Your task to perform on an android device: turn on notifications settings in the gmail app Image 0: 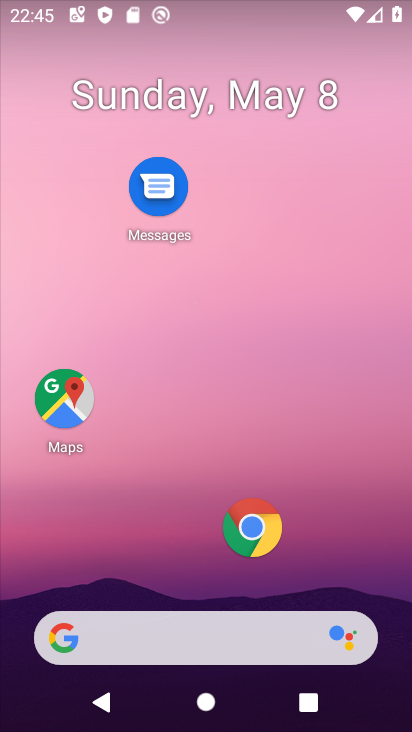
Step 0: drag from (185, 548) to (218, 119)
Your task to perform on an android device: turn on notifications settings in the gmail app Image 1: 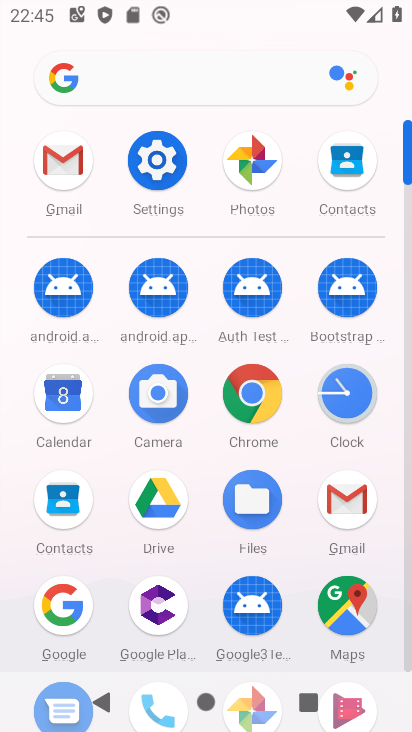
Step 1: click (59, 166)
Your task to perform on an android device: turn on notifications settings in the gmail app Image 2: 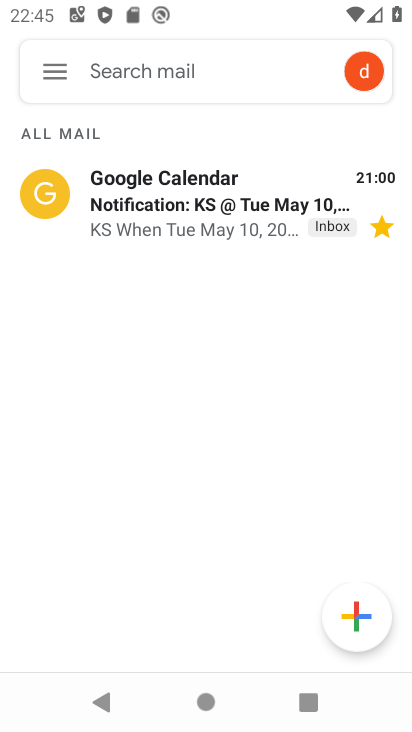
Step 2: press back button
Your task to perform on an android device: turn on notifications settings in the gmail app Image 3: 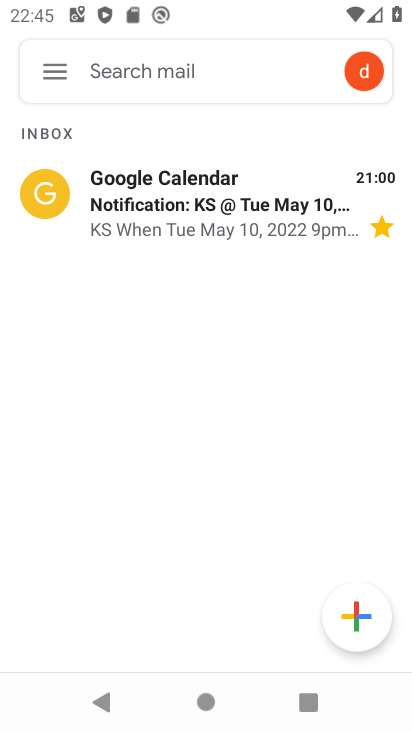
Step 3: click (56, 72)
Your task to perform on an android device: turn on notifications settings in the gmail app Image 4: 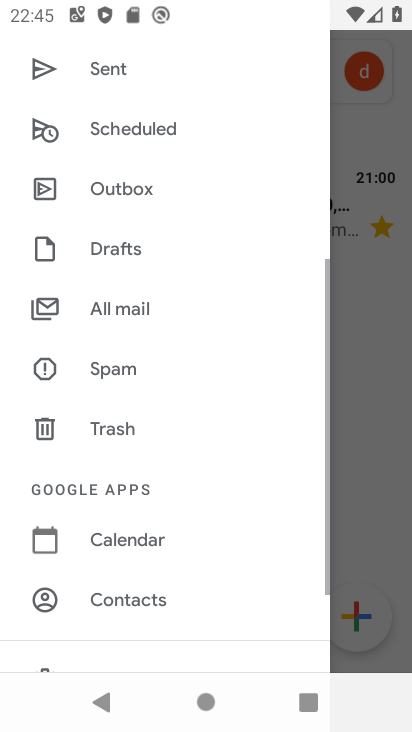
Step 4: drag from (147, 565) to (188, 59)
Your task to perform on an android device: turn on notifications settings in the gmail app Image 5: 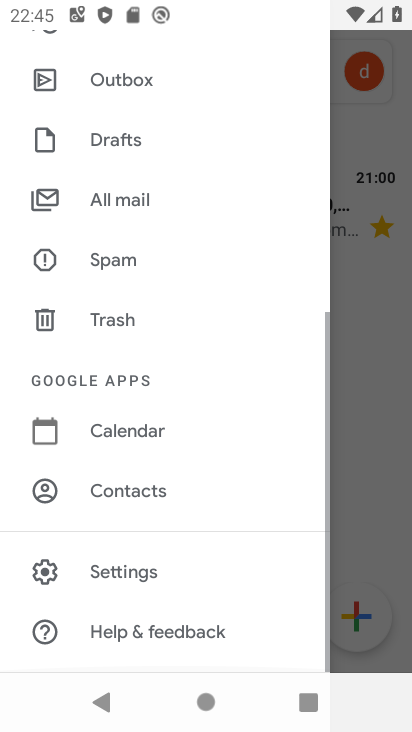
Step 5: click (120, 576)
Your task to perform on an android device: turn on notifications settings in the gmail app Image 6: 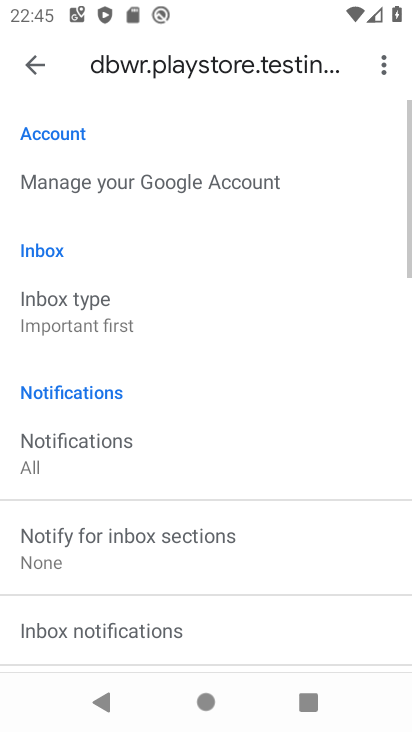
Step 6: drag from (114, 603) to (123, 383)
Your task to perform on an android device: turn on notifications settings in the gmail app Image 7: 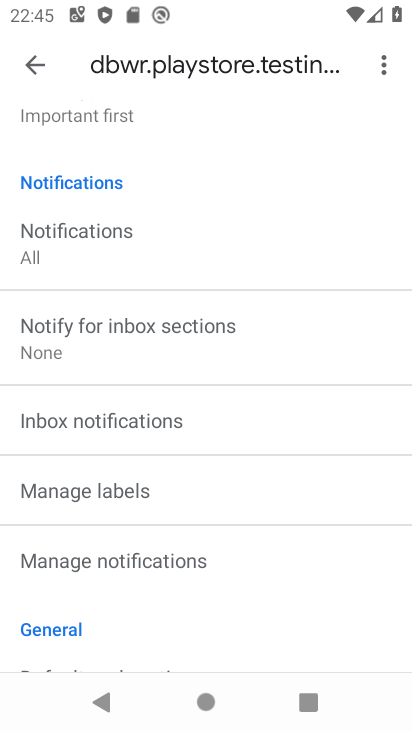
Step 7: click (92, 268)
Your task to perform on an android device: turn on notifications settings in the gmail app Image 8: 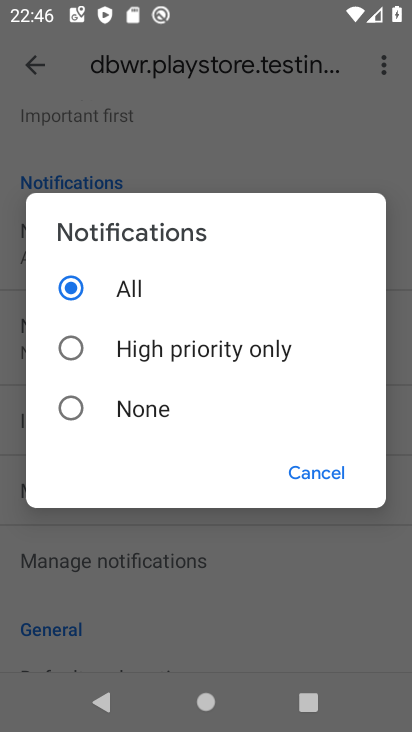
Step 8: task complete